Your task to perform on an android device: manage bookmarks in the chrome app Image 0: 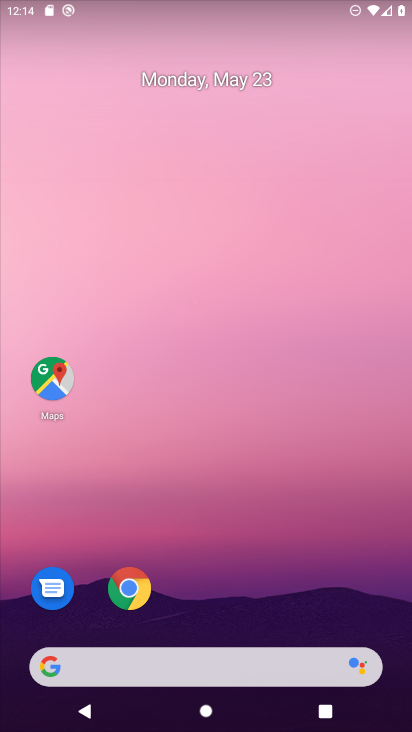
Step 0: drag from (301, 690) to (285, 60)
Your task to perform on an android device: manage bookmarks in the chrome app Image 1: 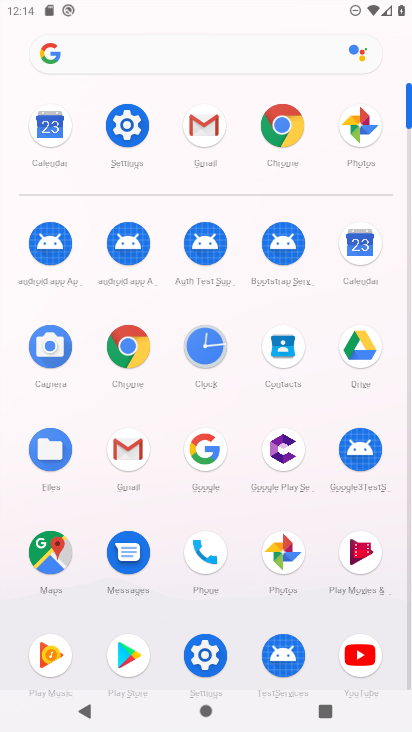
Step 1: click (284, 140)
Your task to perform on an android device: manage bookmarks in the chrome app Image 2: 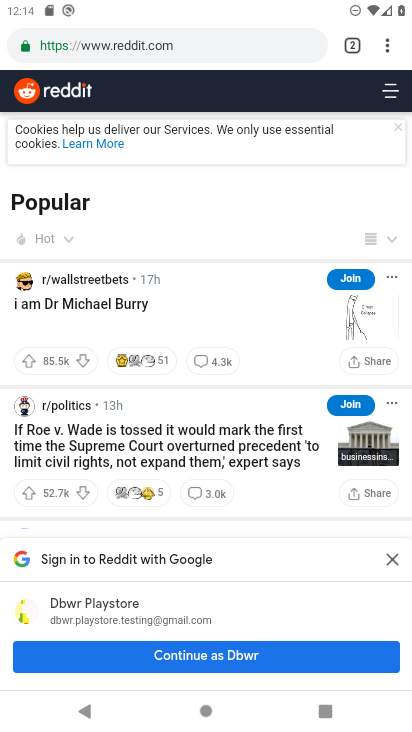
Step 2: click (390, 53)
Your task to perform on an android device: manage bookmarks in the chrome app Image 3: 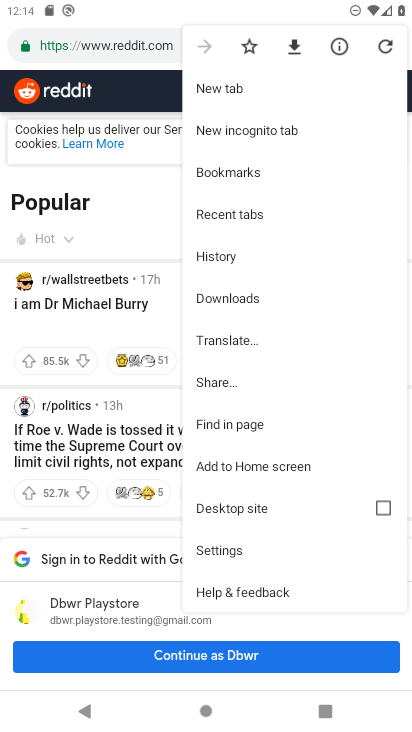
Step 3: click (233, 551)
Your task to perform on an android device: manage bookmarks in the chrome app Image 4: 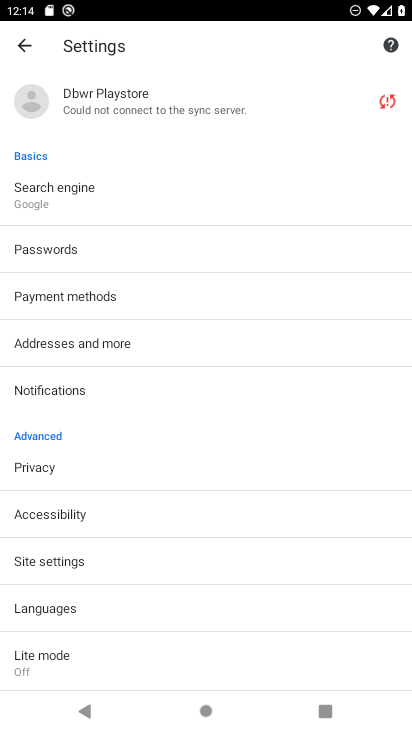
Step 4: click (14, 31)
Your task to perform on an android device: manage bookmarks in the chrome app Image 5: 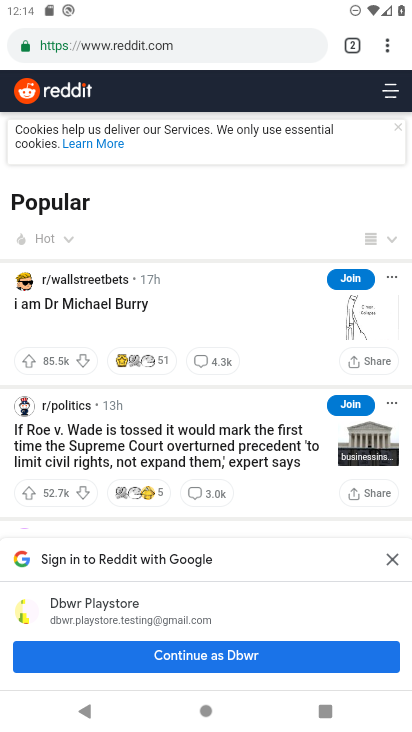
Step 5: click (381, 52)
Your task to perform on an android device: manage bookmarks in the chrome app Image 6: 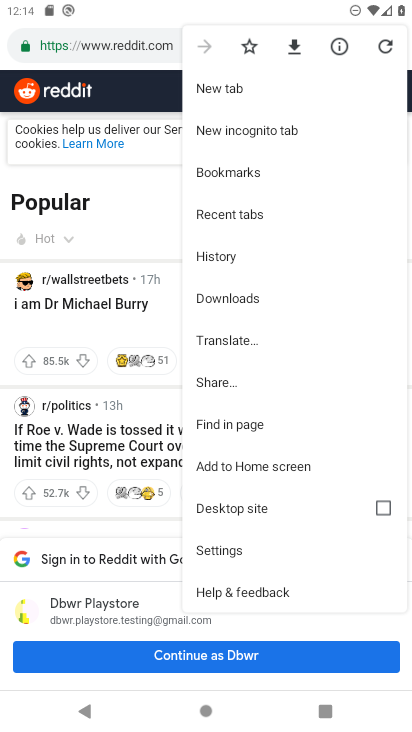
Step 6: click (231, 173)
Your task to perform on an android device: manage bookmarks in the chrome app Image 7: 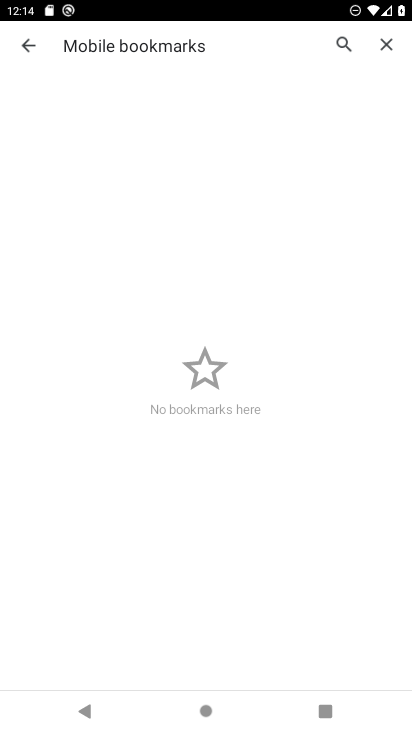
Step 7: task complete